Your task to perform on an android device: Search for Italian restaurants on Maps Image 0: 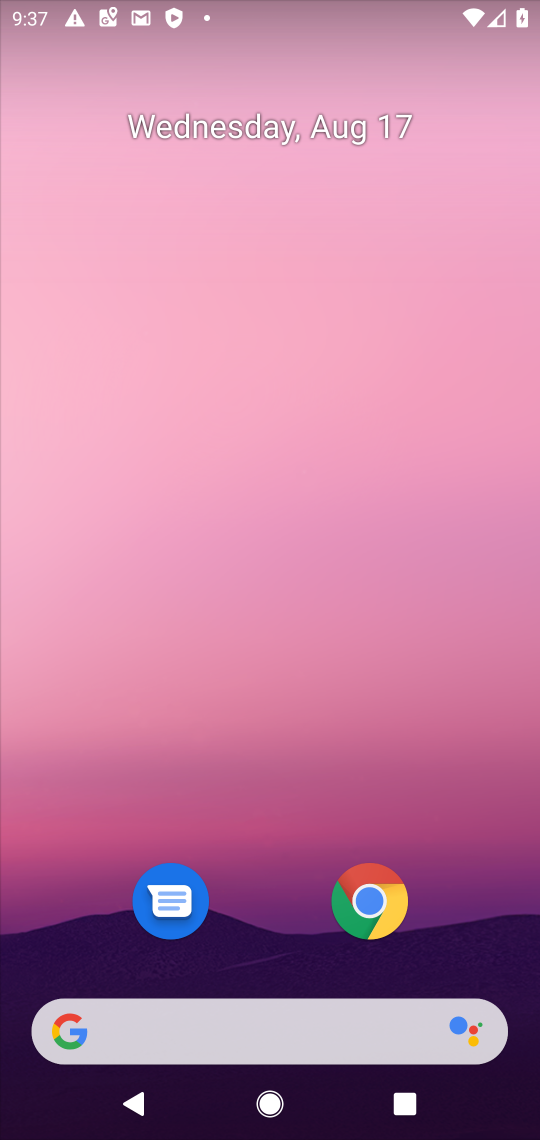
Step 0: drag from (253, 865) to (334, 34)
Your task to perform on an android device: Search for Italian restaurants on Maps Image 1: 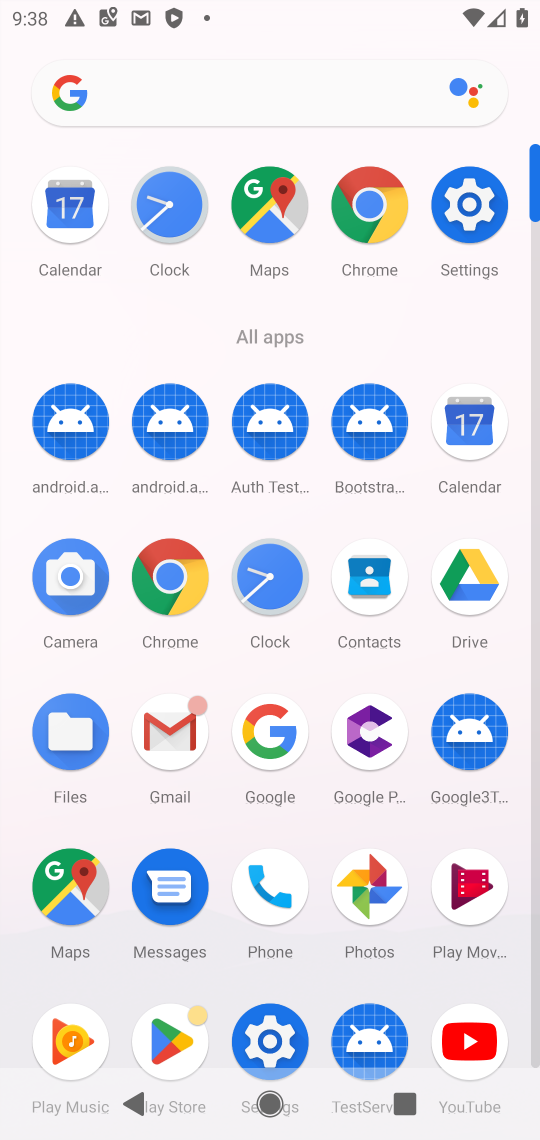
Step 1: click (73, 885)
Your task to perform on an android device: Search for Italian restaurants on Maps Image 2: 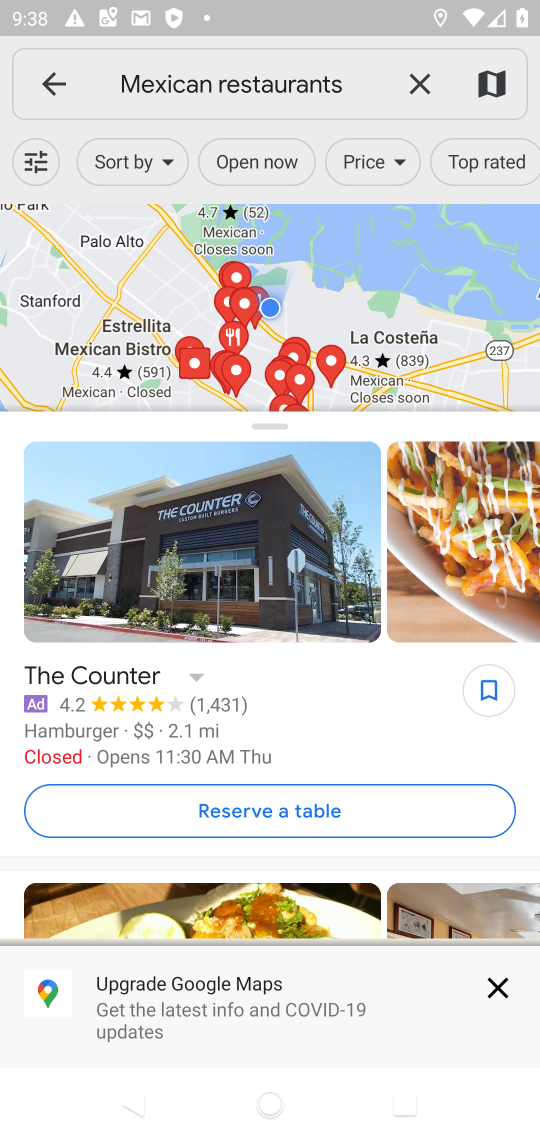
Step 2: click (412, 71)
Your task to perform on an android device: Search for Italian restaurants on Maps Image 3: 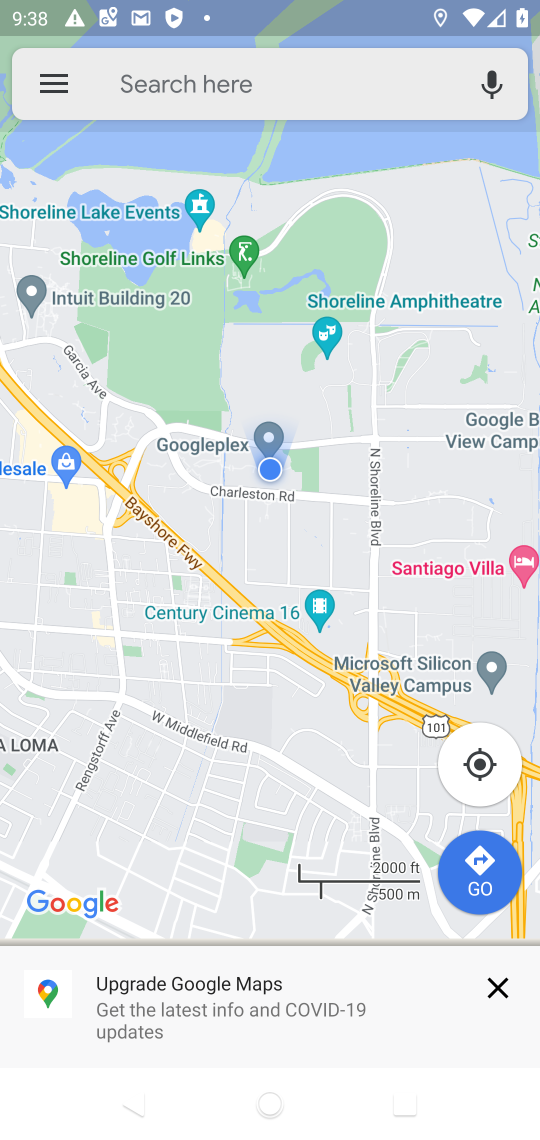
Step 3: click (293, 67)
Your task to perform on an android device: Search for Italian restaurants on Maps Image 4: 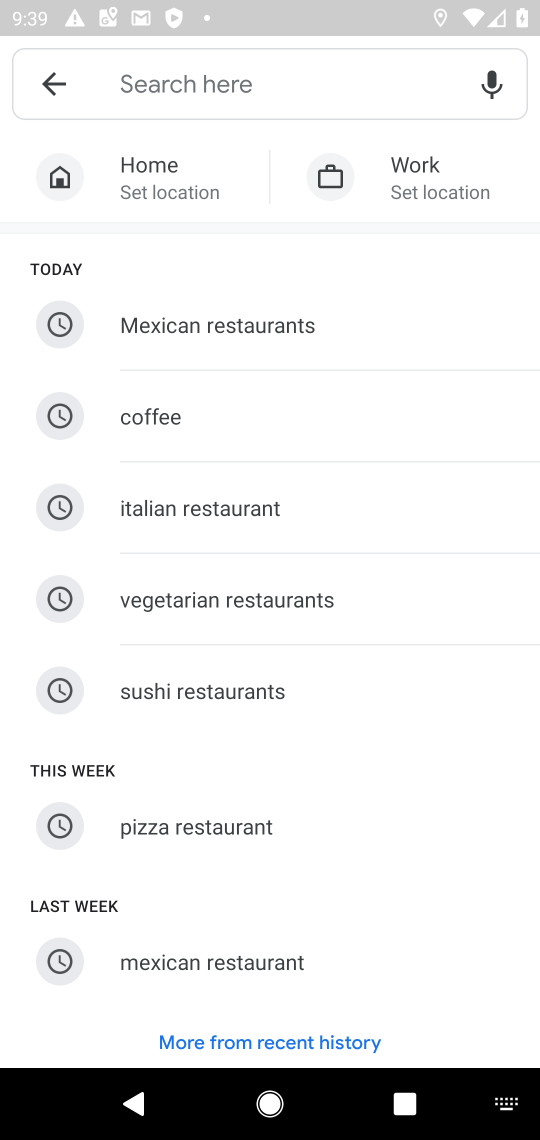
Step 4: type "Italian restaurants"
Your task to perform on an android device: Search for Italian restaurants on Maps Image 5: 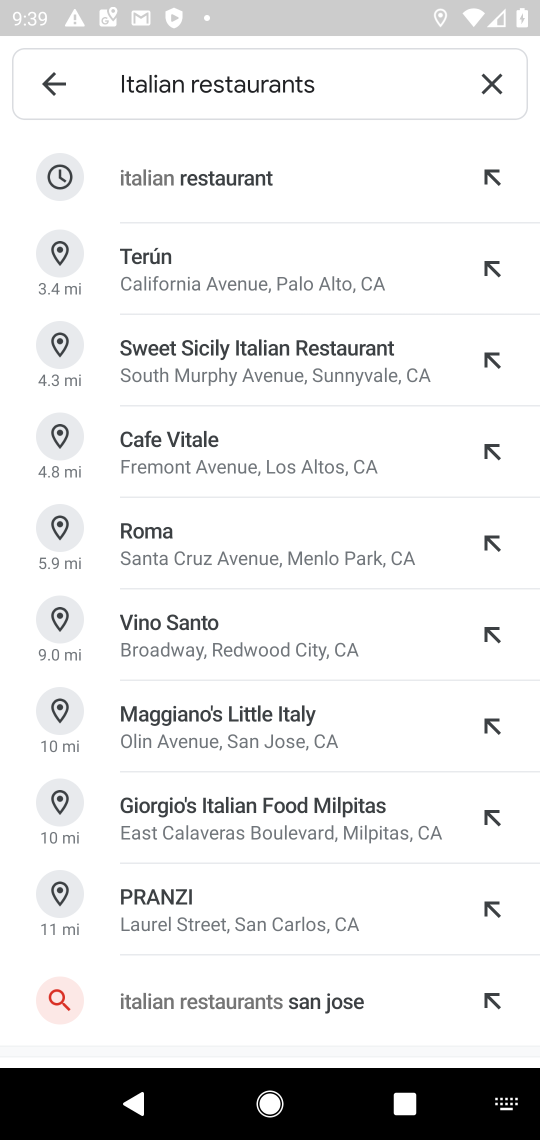
Step 5: press enter
Your task to perform on an android device: Search for Italian restaurants on Maps Image 6: 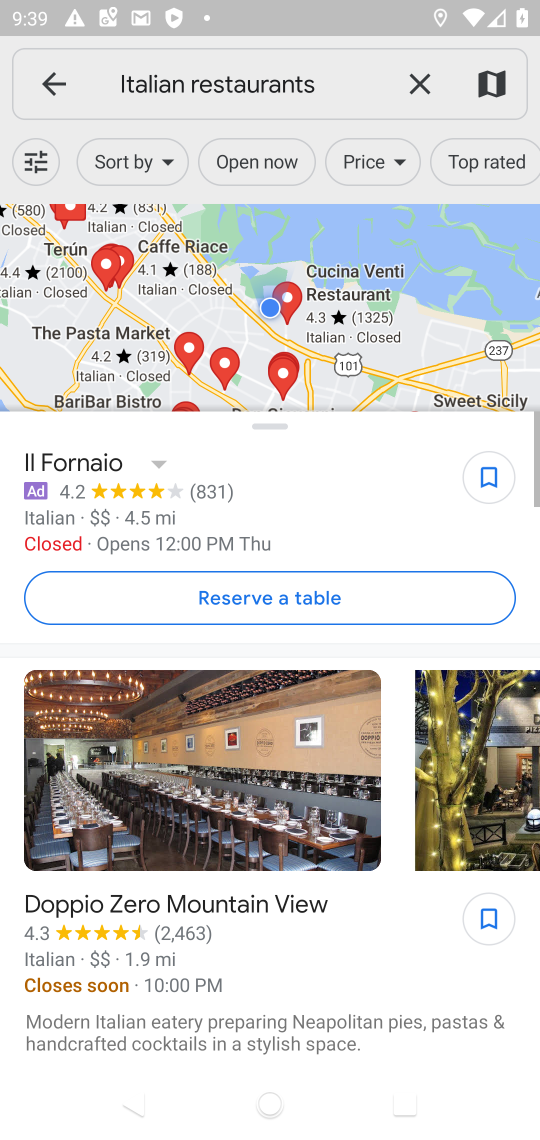
Step 6: task complete